Your task to perform on an android device: toggle wifi Image 0: 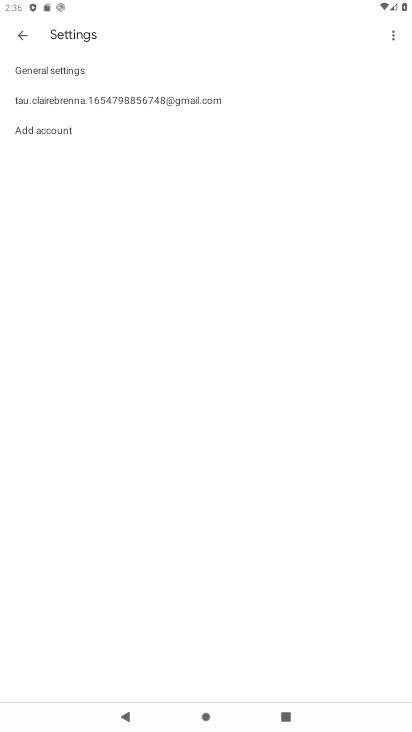
Step 0: press home button
Your task to perform on an android device: toggle wifi Image 1: 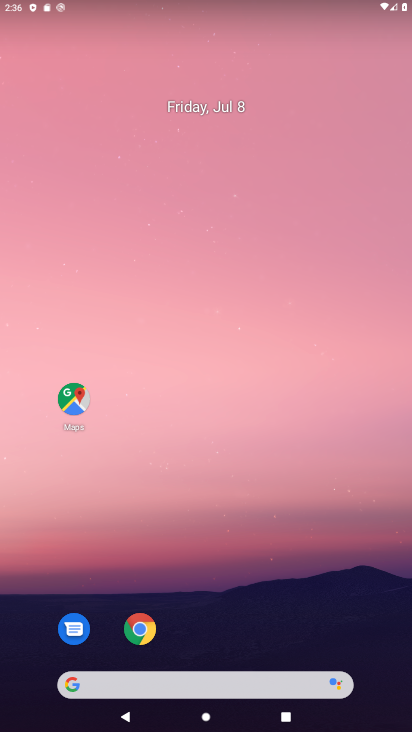
Step 1: drag from (216, 600) to (363, 195)
Your task to perform on an android device: toggle wifi Image 2: 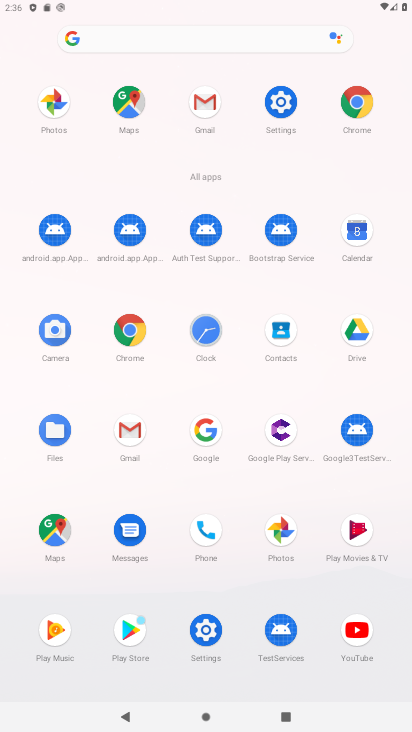
Step 2: click (215, 624)
Your task to perform on an android device: toggle wifi Image 3: 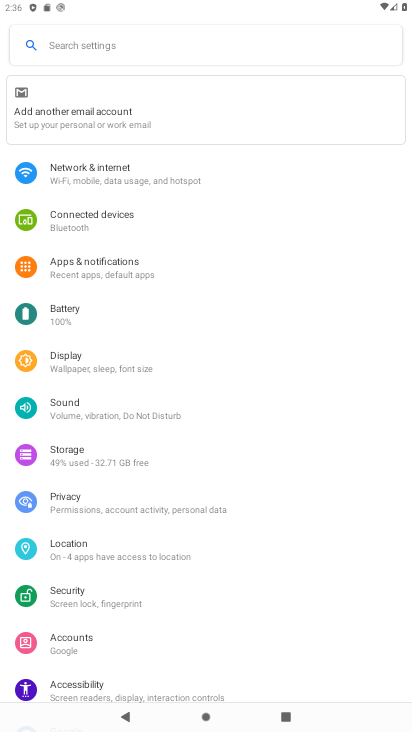
Step 3: click (133, 173)
Your task to perform on an android device: toggle wifi Image 4: 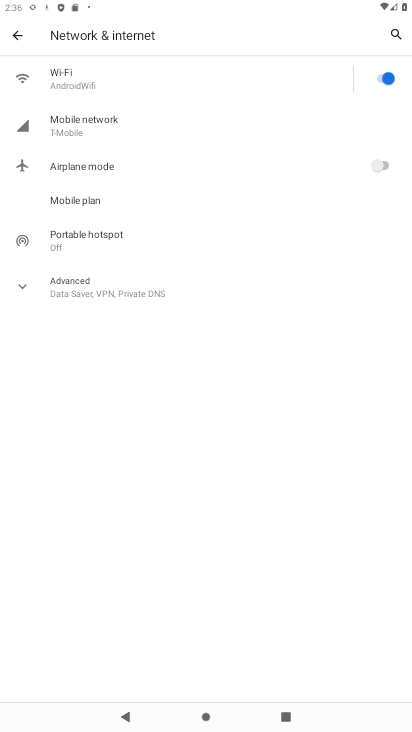
Step 4: click (368, 72)
Your task to perform on an android device: toggle wifi Image 5: 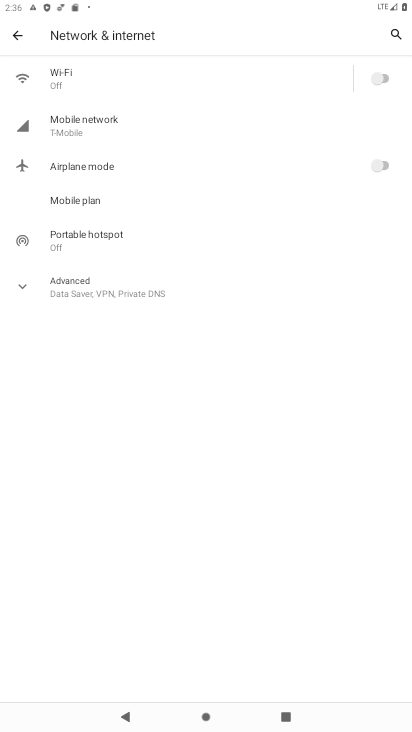
Step 5: task complete